Your task to perform on an android device: Open notification settings Image 0: 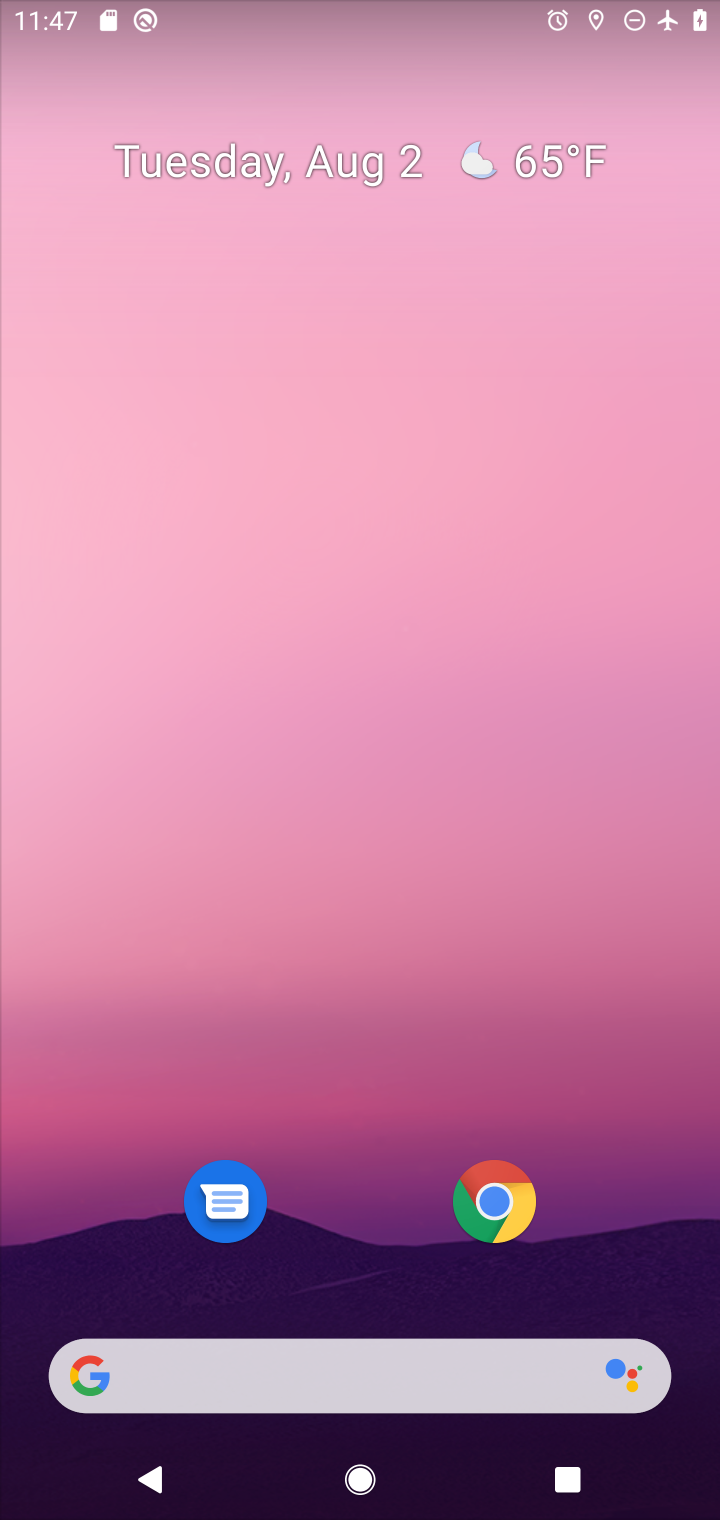
Step 0: drag from (339, 1215) to (559, 357)
Your task to perform on an android device: Open notification settings Image 1: 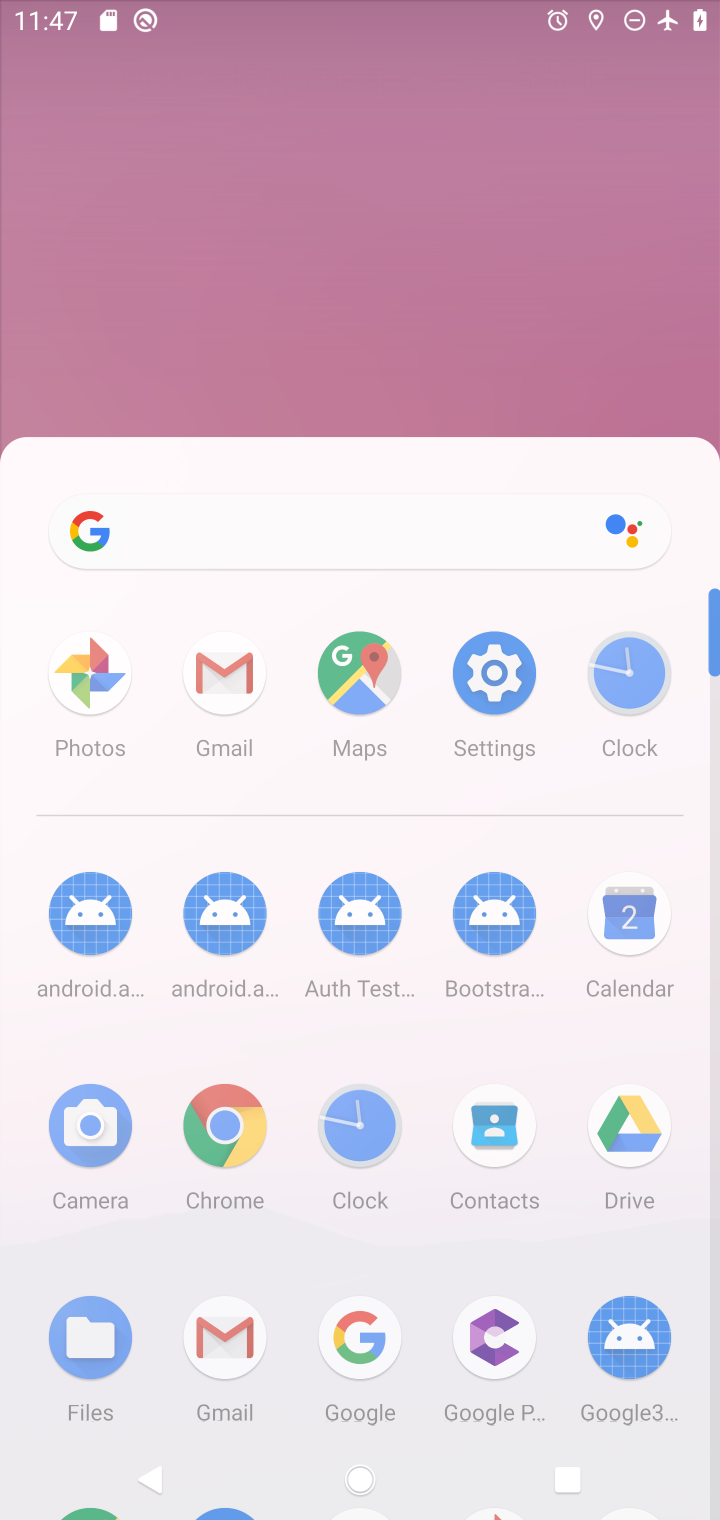
Step 1: click (457, 287)
Your task to perform on an android device: Open notification settings Image 2: 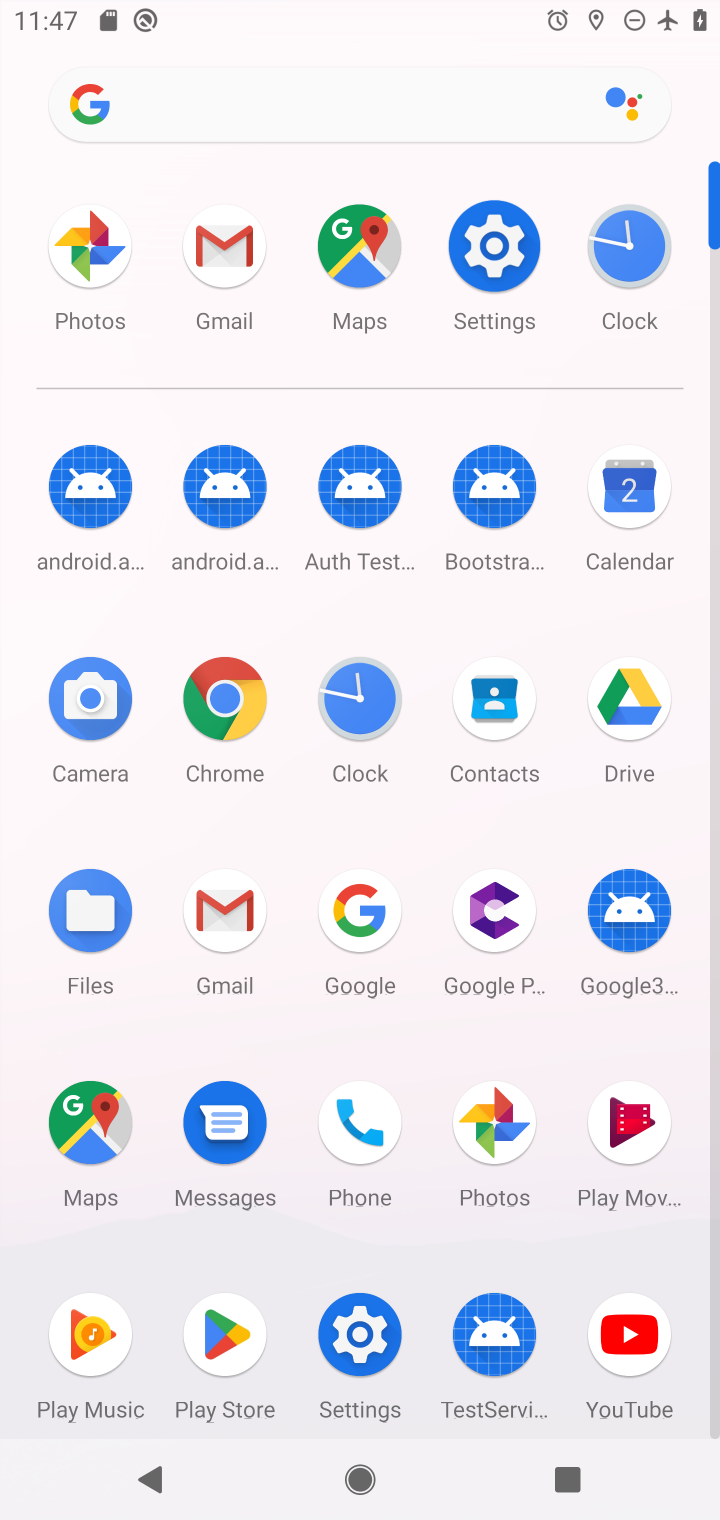
Step 2: click (500, 256)
Your task to perform on an android device: Open notification settings Image 3: 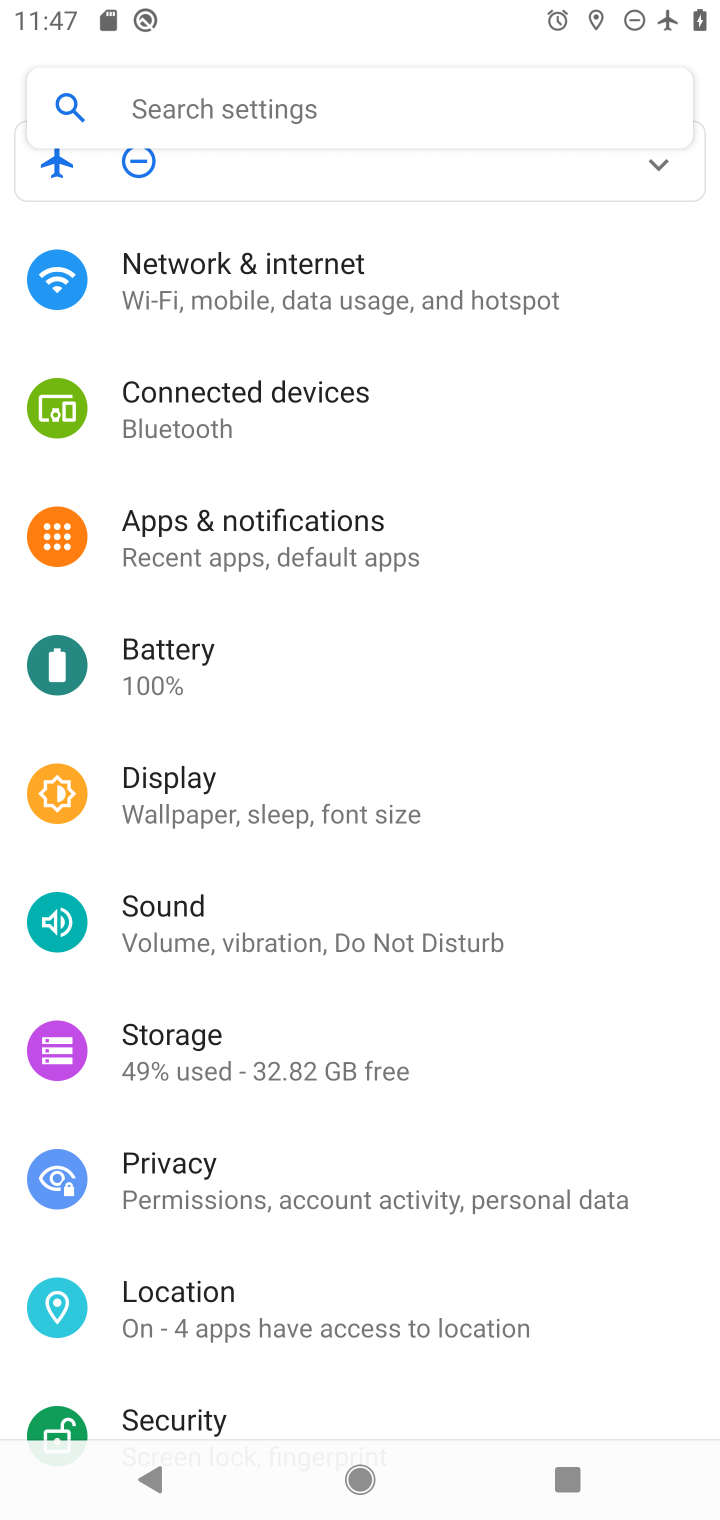
Step 3: drag from (362, 1040) to (412, 670)
Your task to perform on an android device: Open notification settings Image 4: 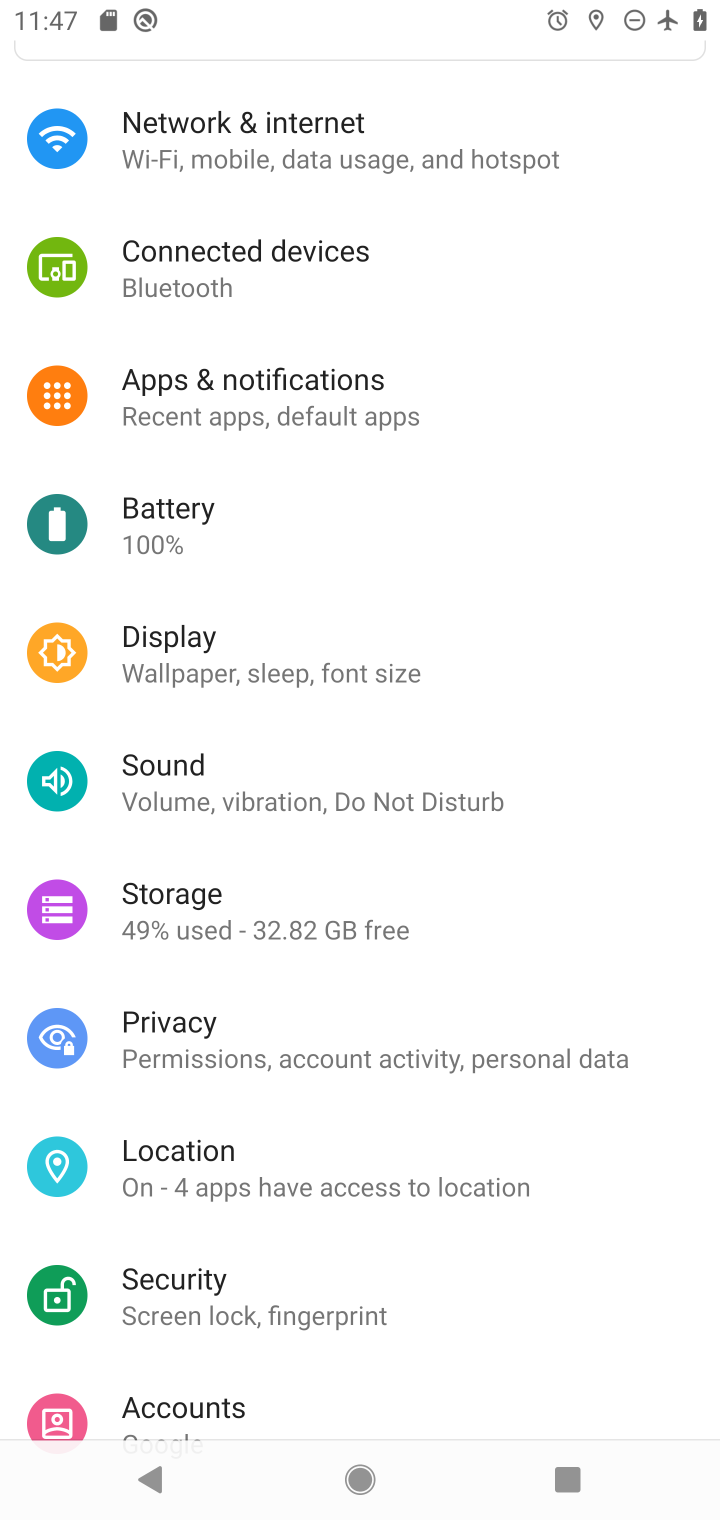
Step 4: click (343, 436)
Your task to perform on an android device: Open notification settings Image 5: 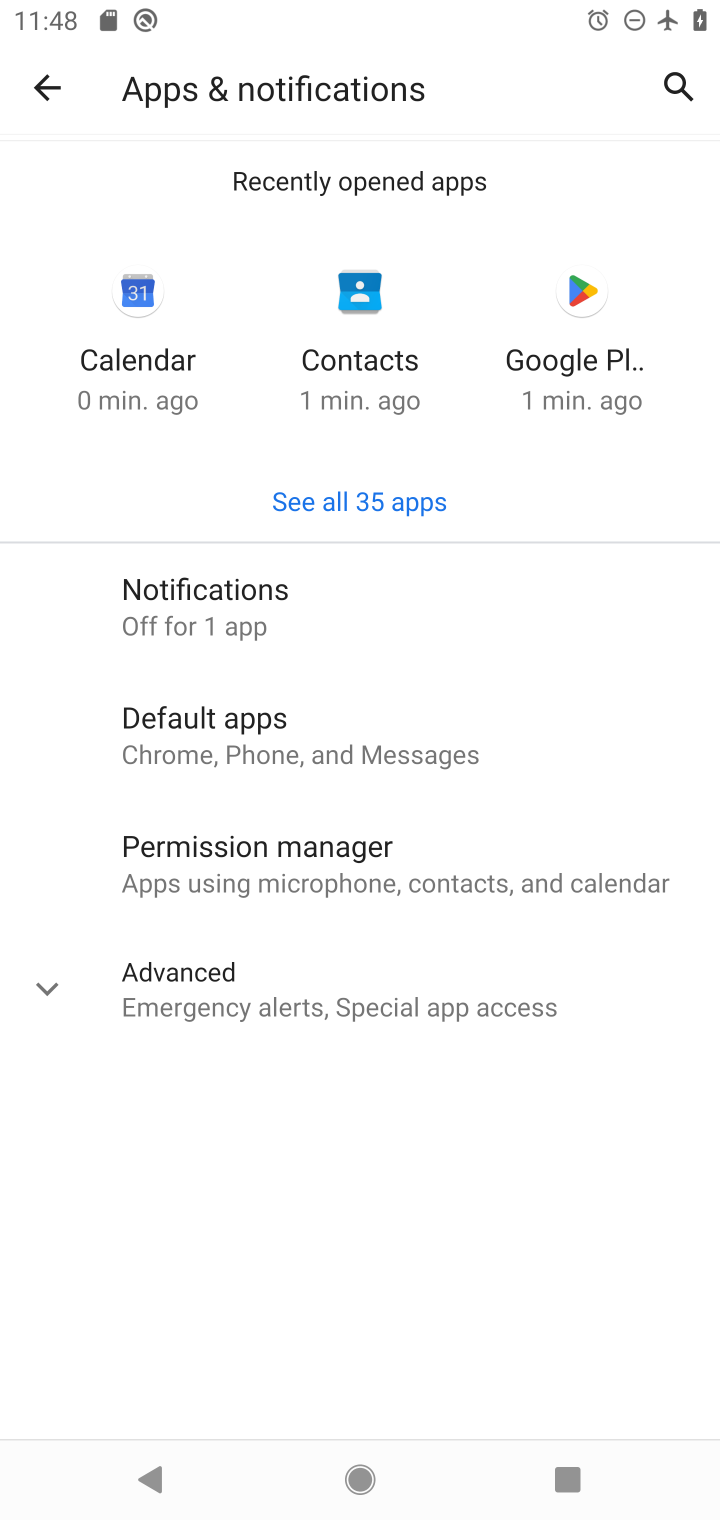
Step 5: click (388, 600)
Your task to perform on an android device: Open notification settings Image 6: 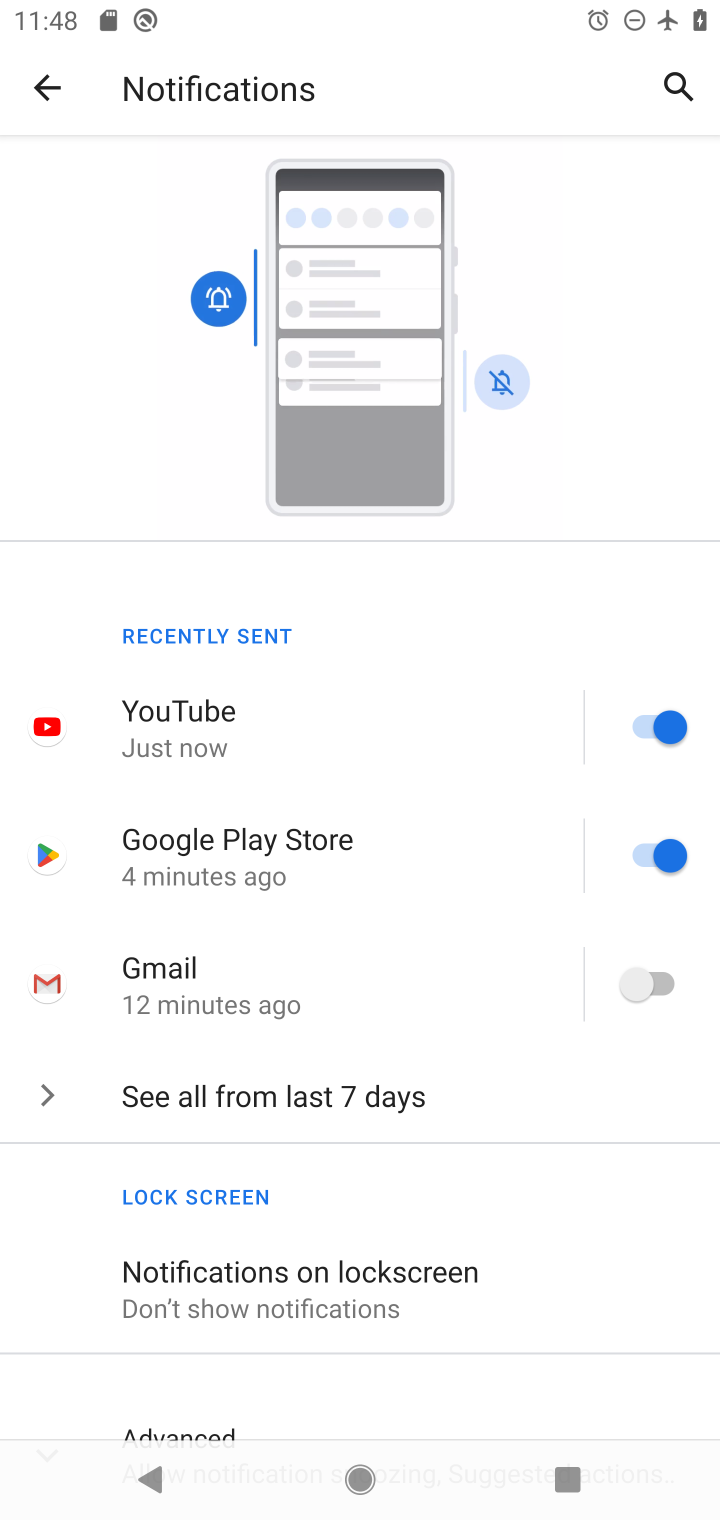
Step 6: task complete